Your task to perform on an android device: turn off translation in the chrome app Image 0: 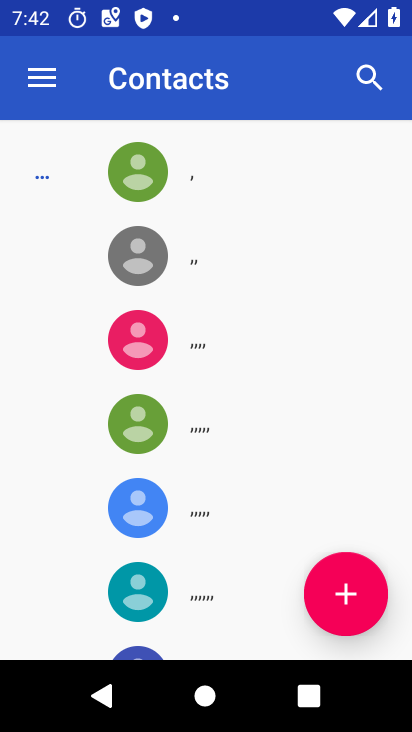
Step 0: press home button
Your task to perform on an android device: turn off translation in the chrome app Image 1: 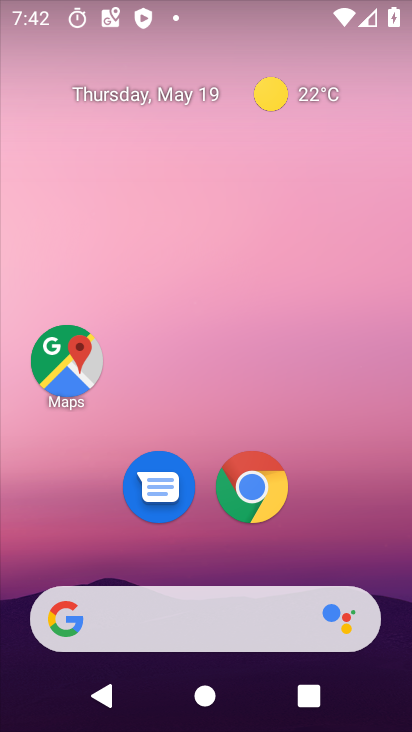
Step 1: click (267, 491)
Your task to perform on an android device: turn off translation in the chrome app Image 2: 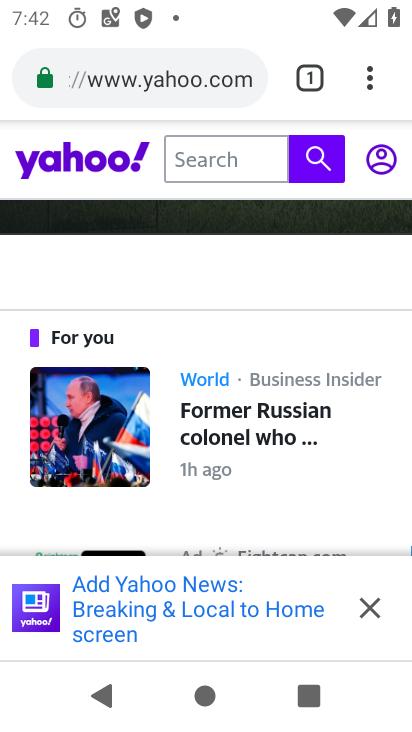
Step 2: drag from (372, 82) to (198, 542)
Your task to perform on an android device: turn off translation in the chrome app Image 3: 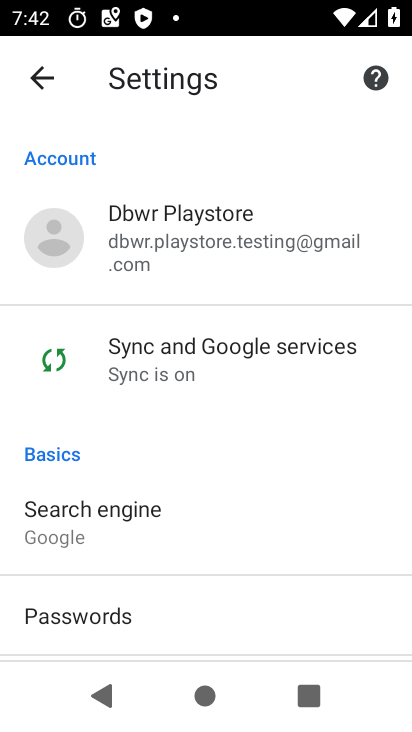
Step 3: drag from (165, 626) to (289, 308)
Your task to perform on an android device: turn off translation in the chrome app Image 4: 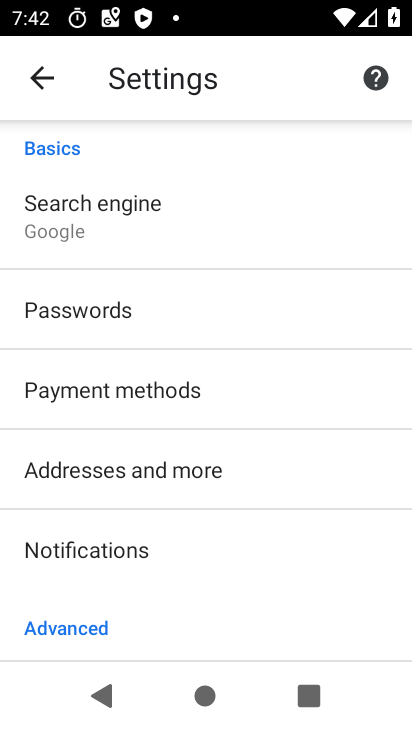
Step 4: drag from (186, 603) to (322, 226)
Your task to perform on an android device: turn off translation in the chrome app Image 5: 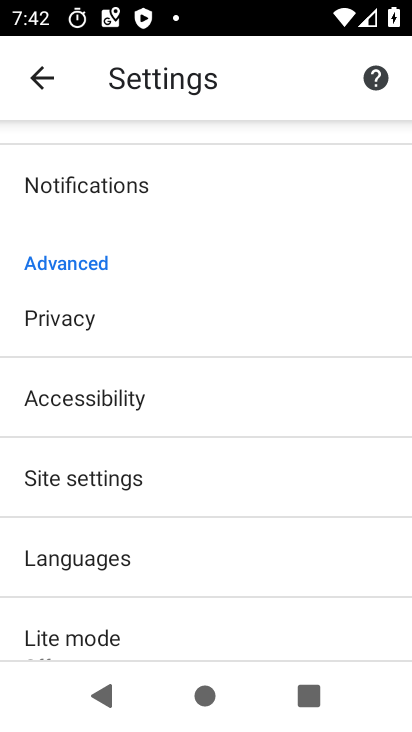
Step 5: click (92, 558)
Your task to perform on an android device: turn off translation in the chrome app Image 6: 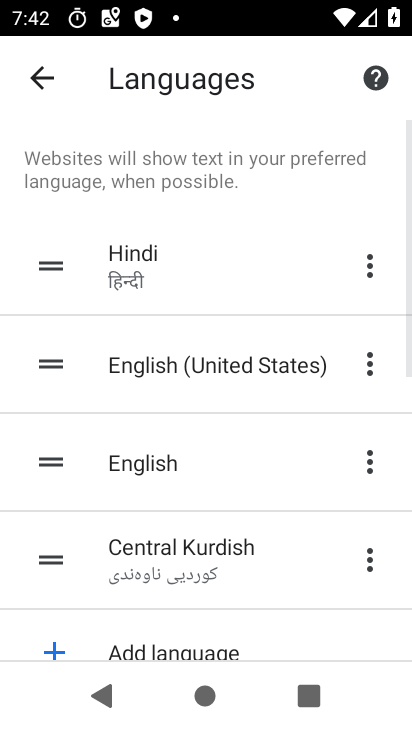
Step 6: task complete